Your task to perform on an android device: Go to CNN.com Image 0: 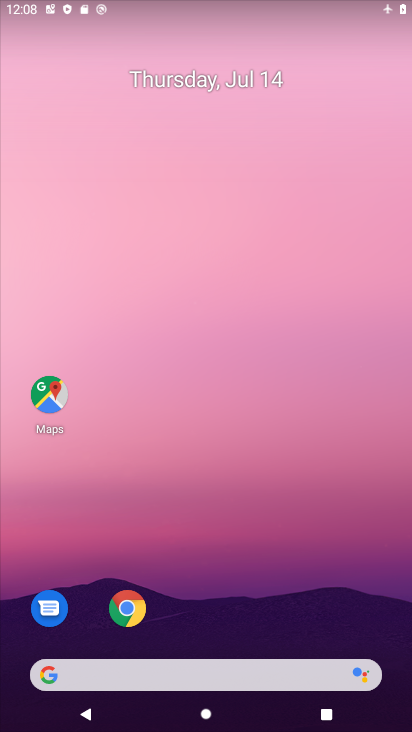
Step 0: click (255, 676)
Your task to perform on an android device: Go to CNN.com Image 1: 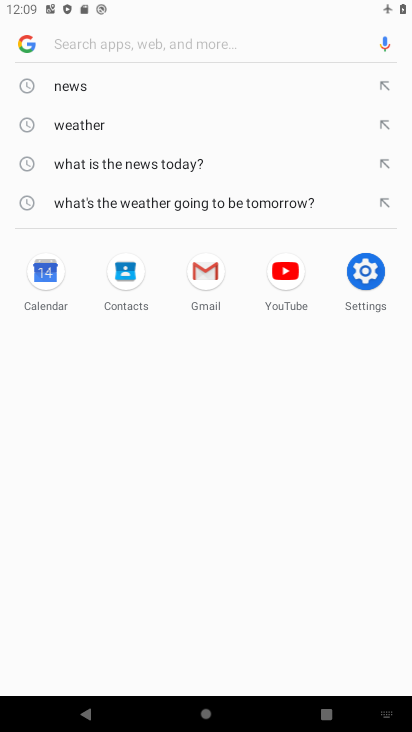
Step 1: type "cnn.com"
Your task to perform on an android device: Go to CNN.com Image 2: 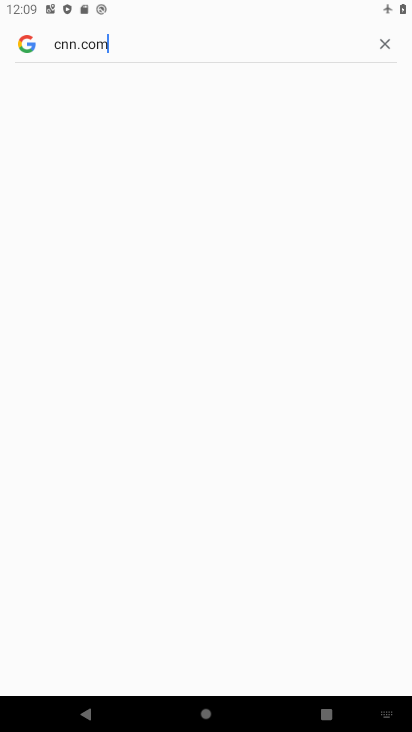
Step 2: task complete